Your task to perform on an android device: Open the Play Movies app and select the watchlist tab. Image 0: 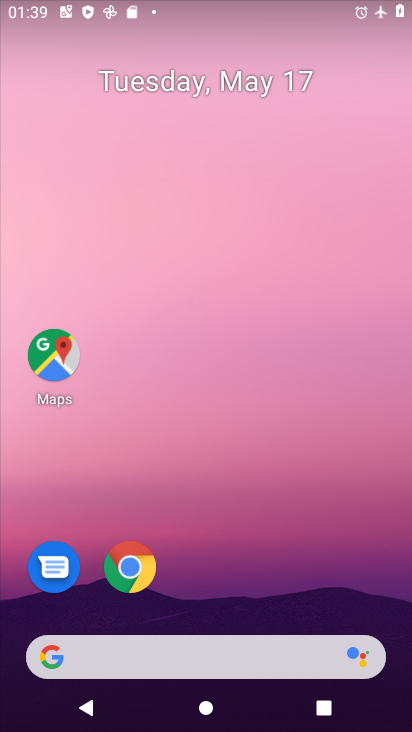
Step 0: drag from (247, 578) to (105, 109)
Your task to perform on an android device: Open the Play Movies app and select the watchlist tab. Image 1: 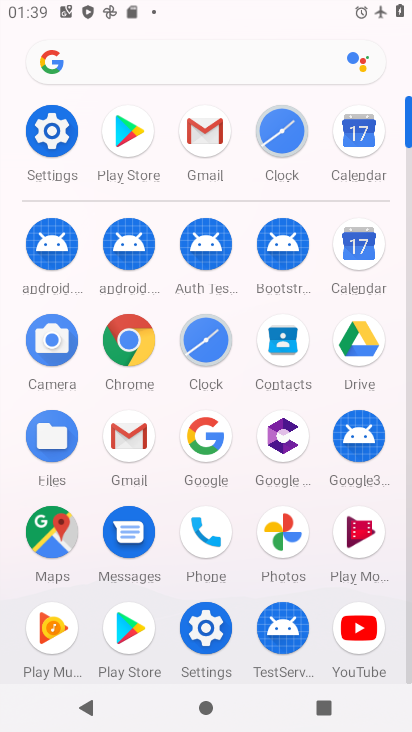
Step 1: click (352, 538)
Your task to perform on an android device: Open the Play Movies app and select the watchlist tab. Image 2: 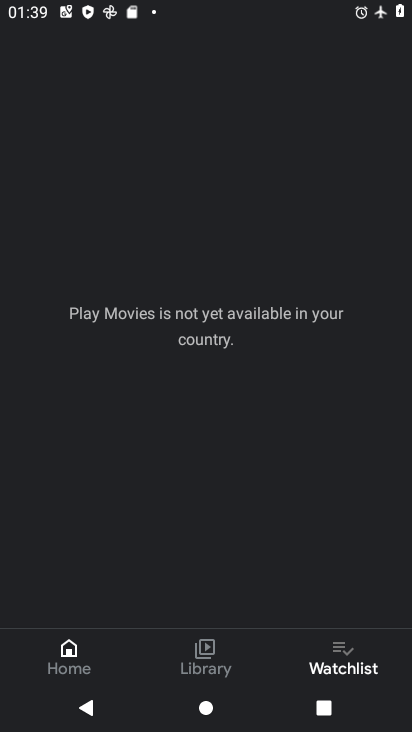
Step 2: click (339, 649)
Your task to perform on an android device: Open the Play Movies app and select the watchlist tab. Image 3: 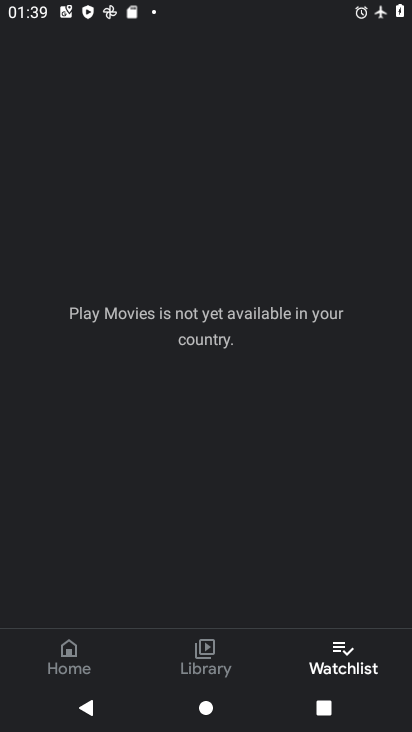
Step 3: task complete